Your task to perform on an android device: Open Yahoo.com Image 0: 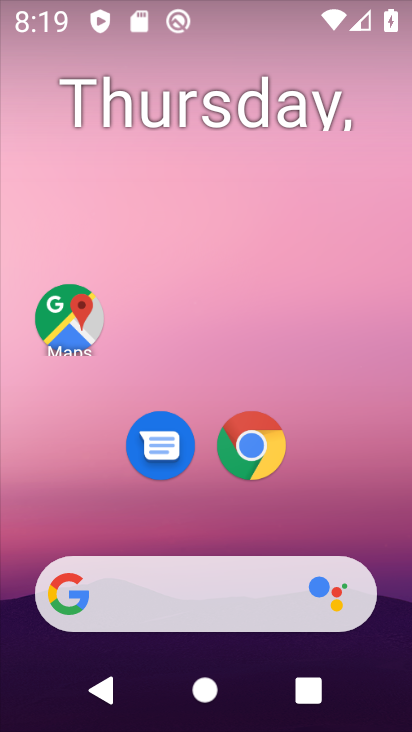
Step 0: drag from (203, 527) to (325, 32)
Your task to perform on an android device: Open Yahoo.com Image 1: 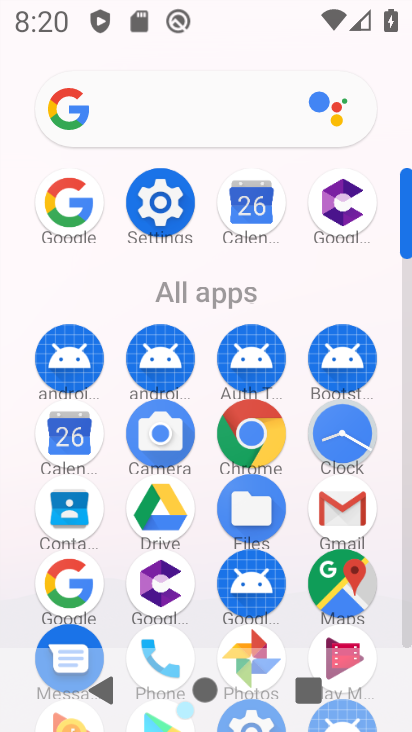
Step 1: click (251, 421)
Your task to perform on an android device: Open Yahoo.com Image 2: 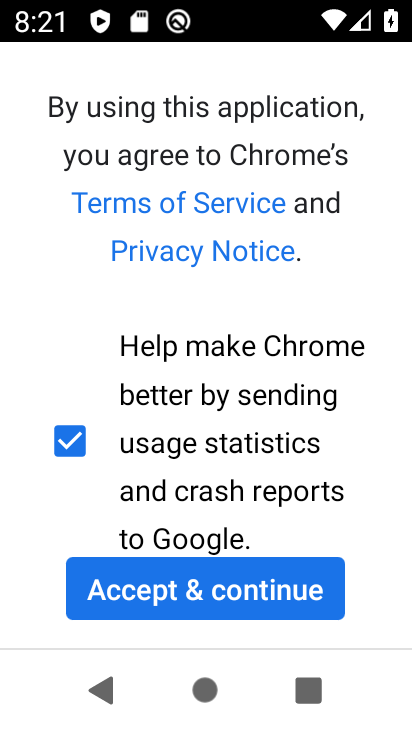
Step 2: click (266, 588)
Your task to perform on an android device: Open Yahoo.com Image 3: 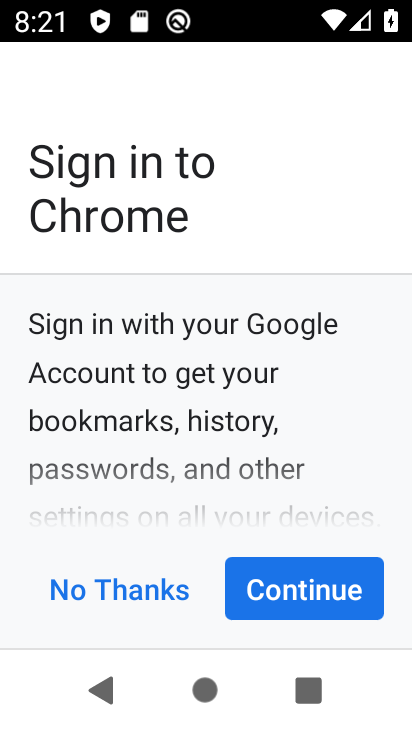
Step 3: click (337, 562)
Your task to perform on an android device: Open Yahoo.com Image 4: 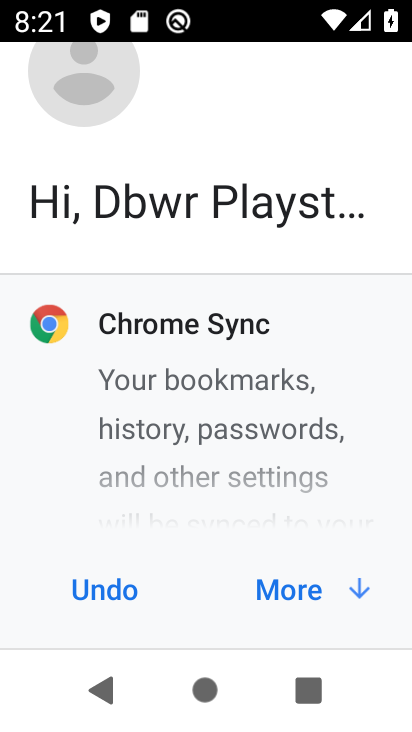
Step 4: click (307, 604)
Your task to perform on an android device: Open Yahoo.com Image 5: 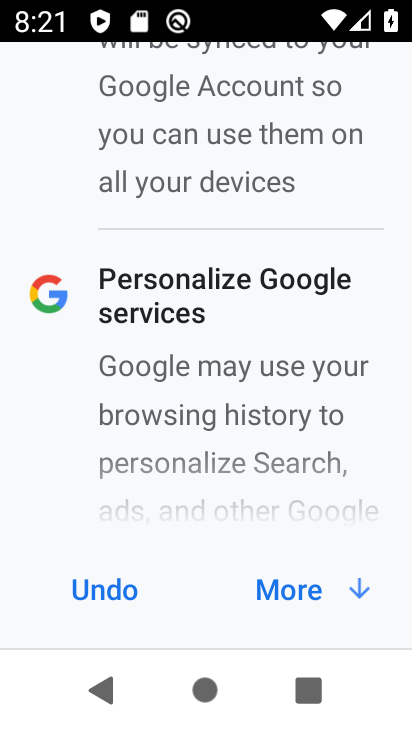
Step 5: click (306, 599)
Your task to perform on an android device: Open Yahoo.com Image 6: 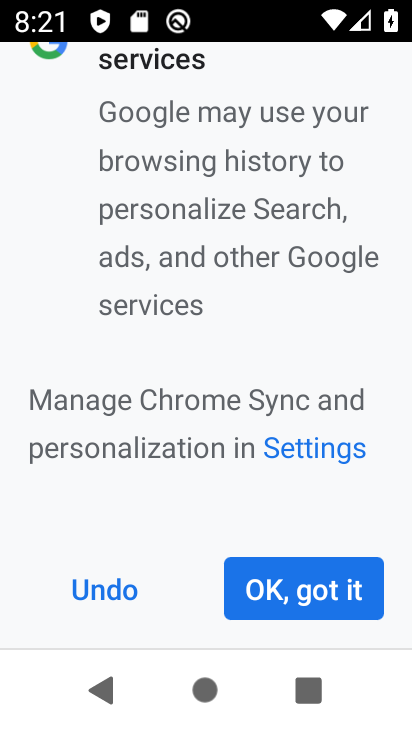
Step 6: click (306, 598)
Your task to perform on an android device: Open Yahoo.com Image 7: 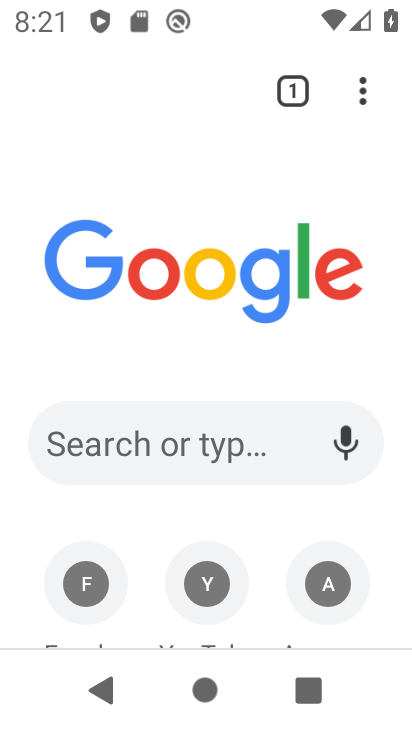
Step 7: click (225, 618)
Your task to perform on an android device: Open Yahoo.com Image 8: 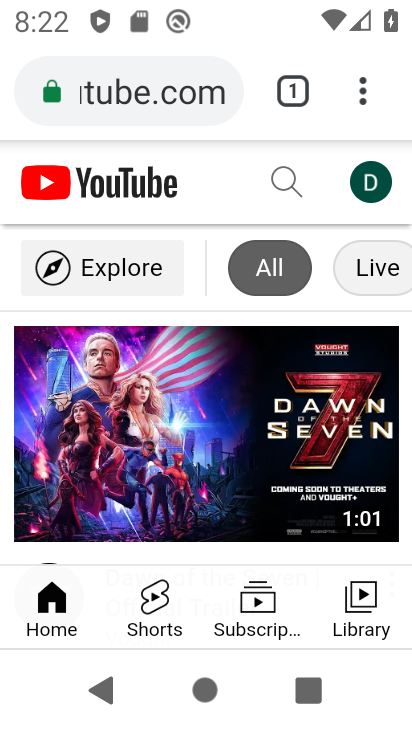
Step 8: task complete